Your task to perform on an android device: find photos in the google photos app Image 0: 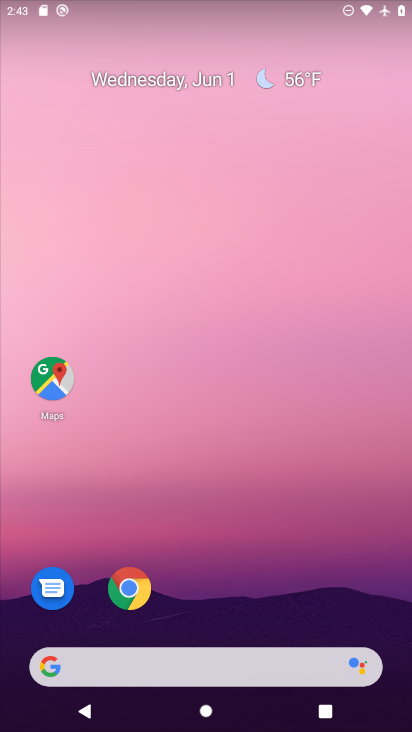
Step 0: click (135, 592)
Your task to perform on an android device: find photos in the google photos app Image 1: 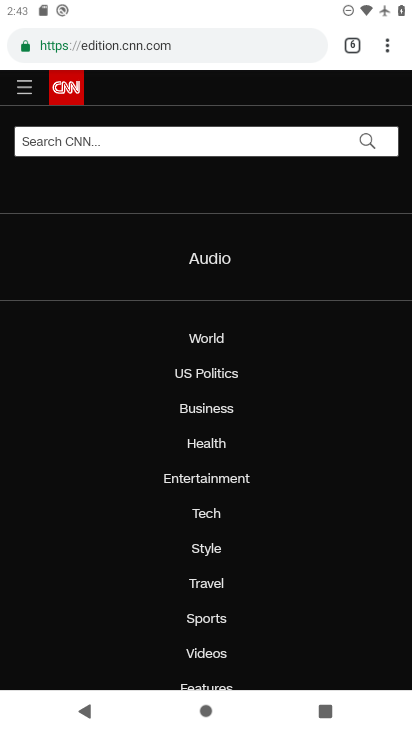
Step 1: press home button
Your task to perform on an android device: find photos in the google photos app Image 2: 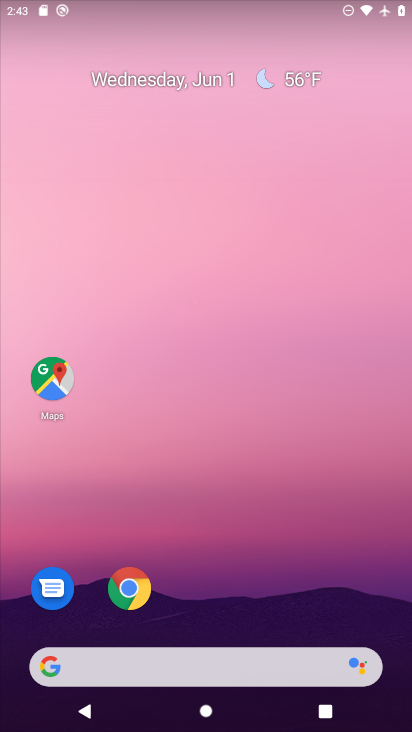
Step 2: drag from (251, 521) to (89, 17)
Your task to perform on an android device: find photos in the google photos app Image 3: 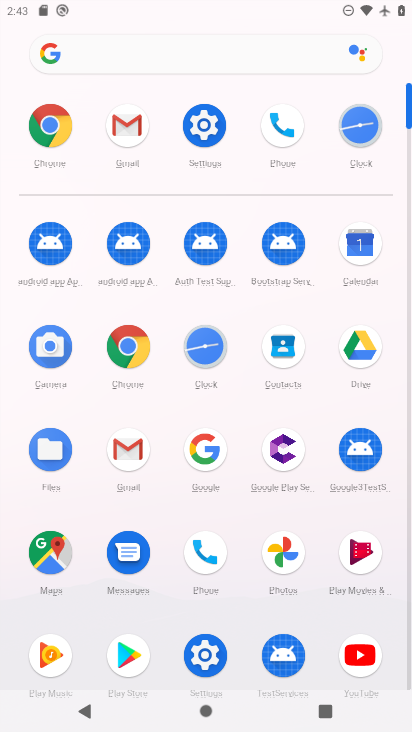
Step 3: click (298, 564)
Your task to perform on an android device: find photos in the google photos app Image 4: 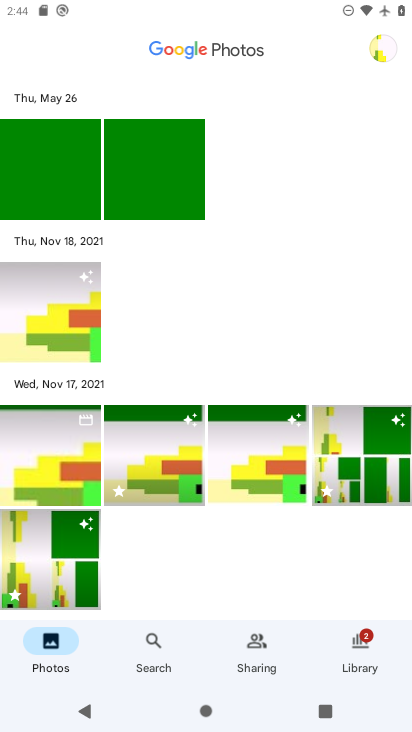
Step 4: task complete